Your task to perform on an android device: manage bookmarks in the chrome app Image 0: 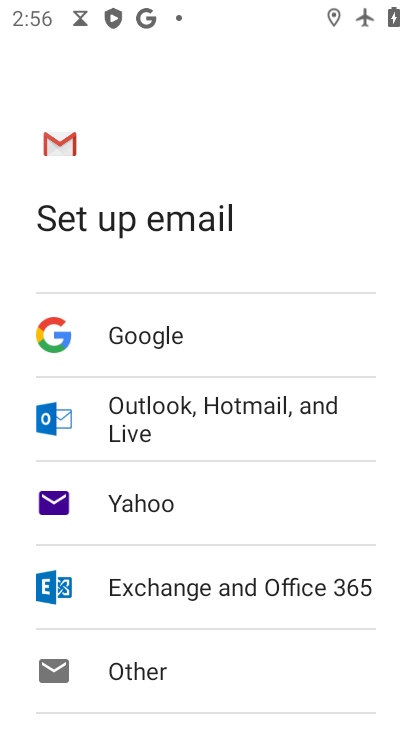
Step 0: press home button
Your task to perform on an android device: manage bookmarks in the chrome app Image 1: 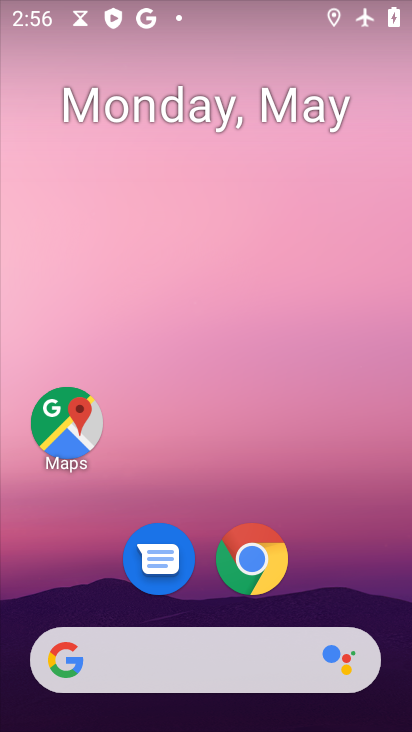
Step 1: click (252, 560)
Your task to perform on an android device: manage bookmarks in the chrome app Image 2: 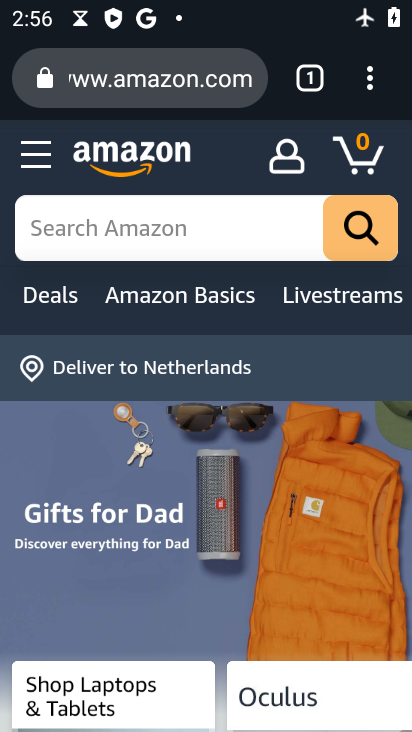
Step 2: click (358, 69)
Your task to perform on an android device: manage bookmarks in the chrome app Image 3: 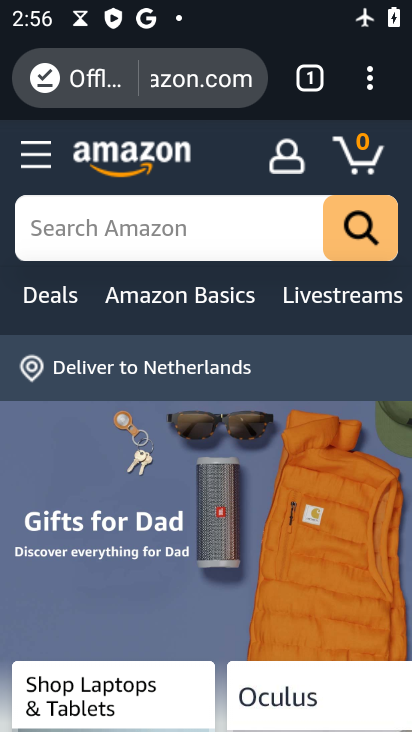
Step 3: click (365, 77)
Your task to perform on an android device: manage bookmarks in the chrome app Image 4: 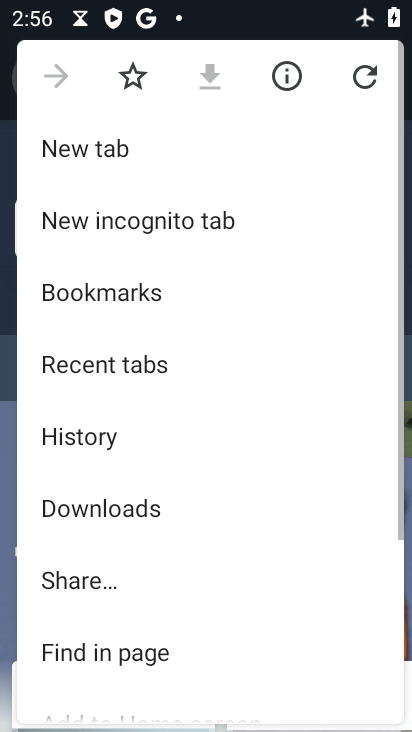
Step 4: click (146, 85)
Your task to perform on an android device: manage bookmarks in the chrome app Image 5: 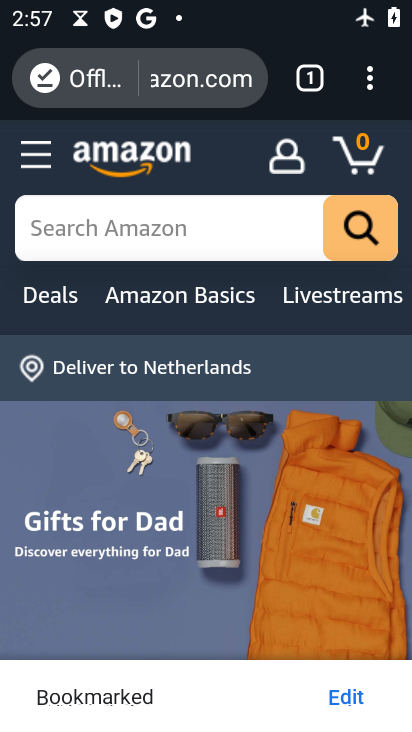
Step 5: task complete